Your task to perform on an android device: Clear the cart on amazon.com. Search for usb-a to usb-b on amazon.com, select the first entry, add it to the cart, then select checkout. Image 0: 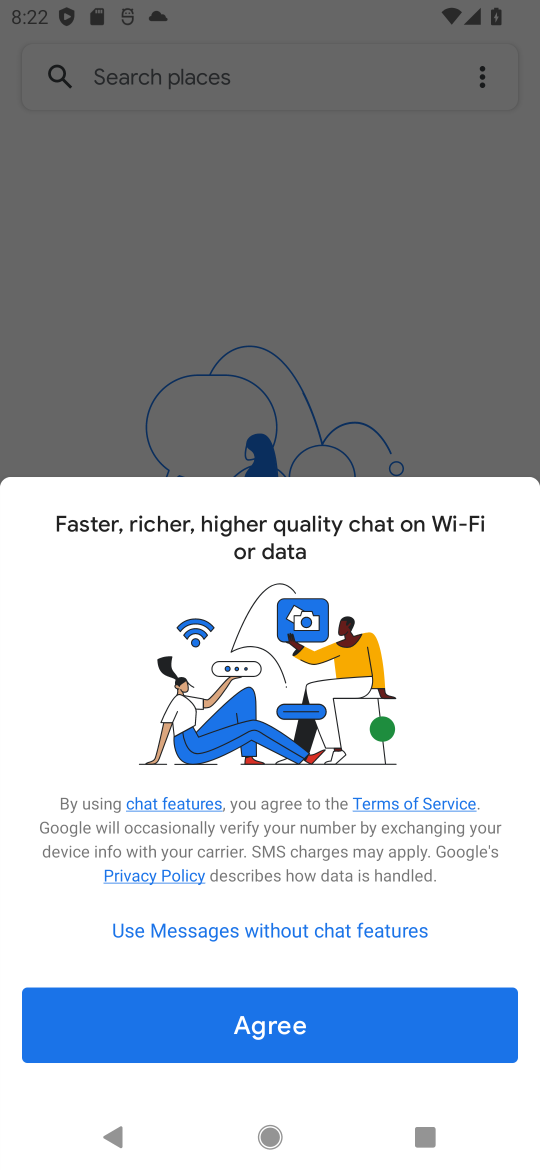
Step 0: press home button
Your task to perform on an android device: Clear the cart on amazon.com. Search for usb-a to usb-b on amazon.com, select the first entry, add it to the cart, then select checkout. Image 1: 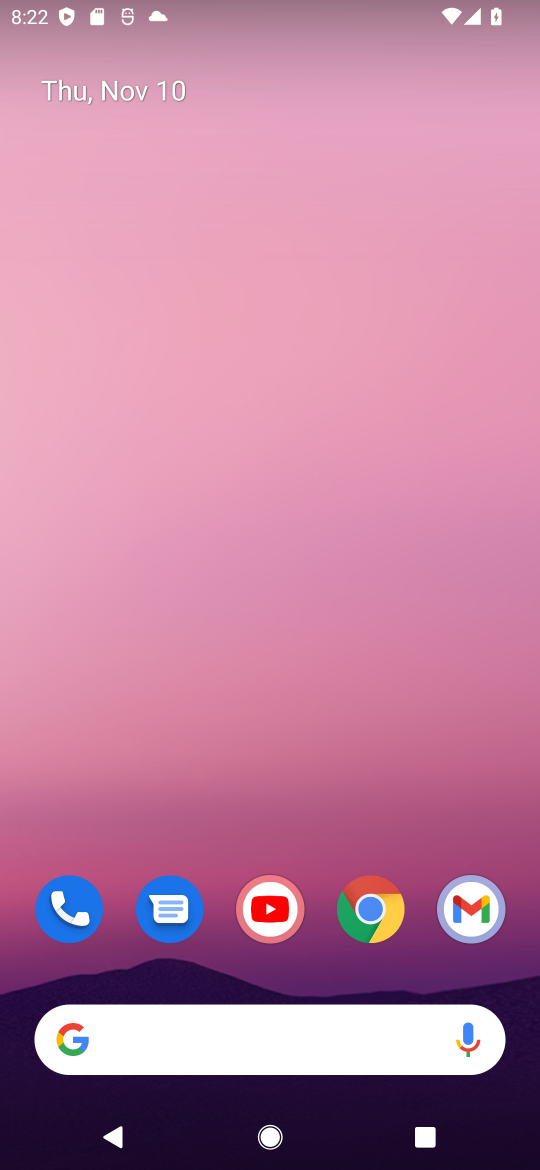
Step 1: drag from (266, 754) to (269, 291)
Your task to perform on an android device: Clear the cart on amazon.com. Search for usb-a to usb-b on amazon.com, select the first entry, add it to the cart, then select checkout. Image 2: 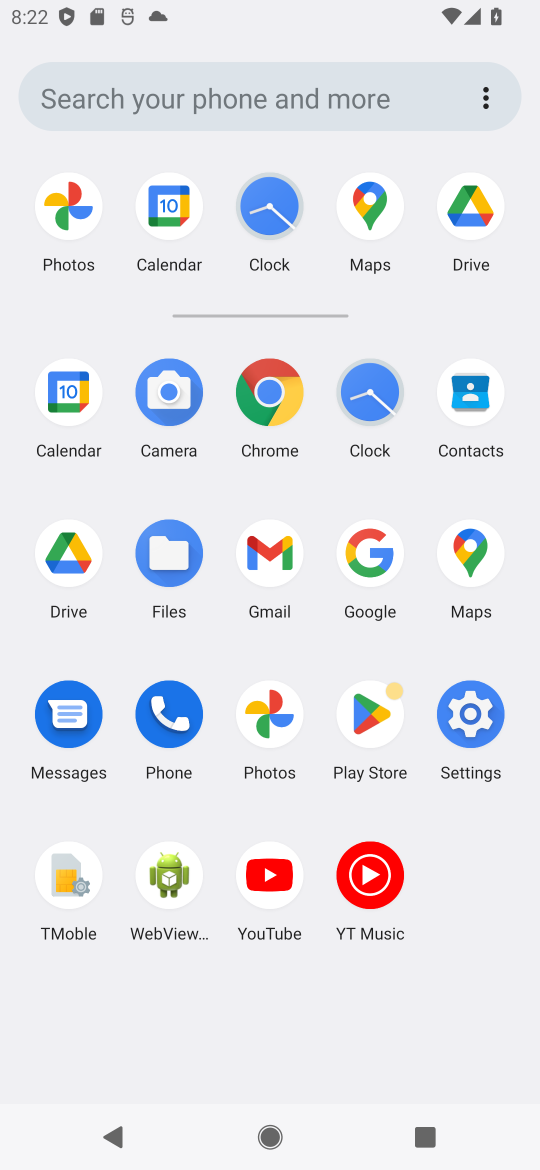
Step 2: click (364, 540)
Your task to perform on an android device: Clear the cart on amazon.com. Search for usb-a to usb-b on amazon.com, select the first entry, add it to the cart, then select checkout. Image 3: 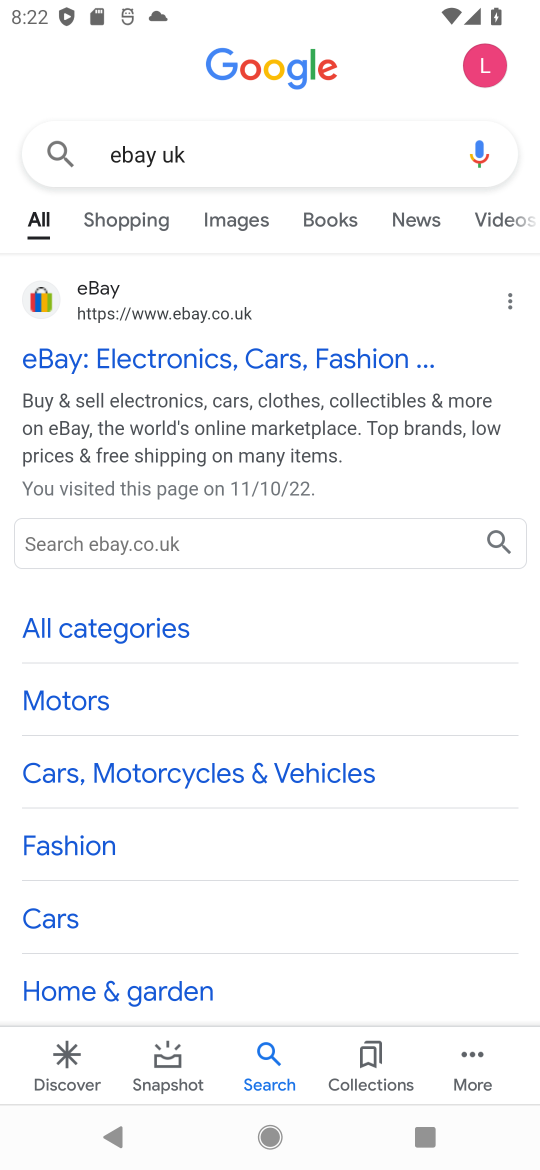
Step 3: click (192, 158)
Your task to perform on an android device: Clear the cart on amazon.com. Search for usb-a to usb-b on amazon.com, select the first entry, add it to the cart, then select checkout. Image 4: 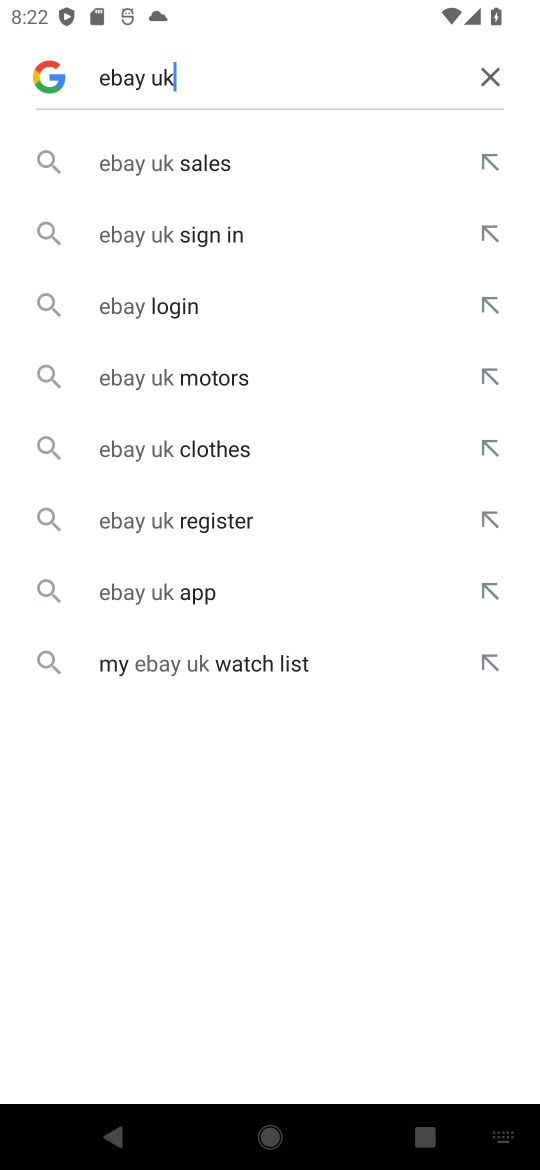
Step 4: click (480, 73)
Your task to perform on an android device: Clear the cart on amazon.com. Search for usb-a to usb-b on amazon.com, select the first entry, add it to the cart, then select checkout. Image 5: 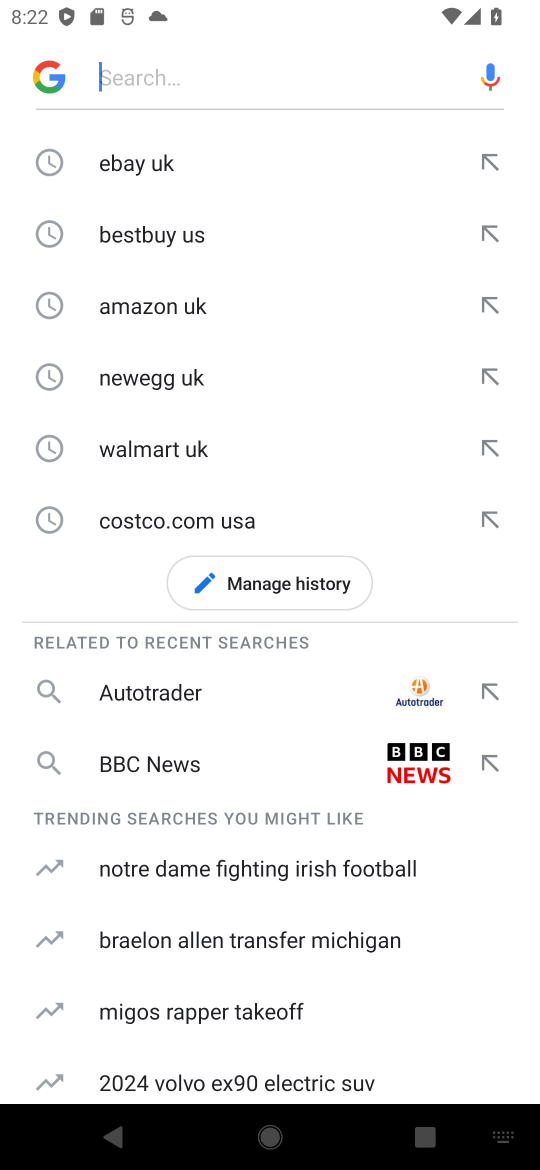
Step 5: click (169, 63)
Your task to perform on an android device: Clear the cart on amazon.com. Search for usb-a to usb-b on amazon.com, select the first entry, add it to the cart, then select checkout. Image 6: 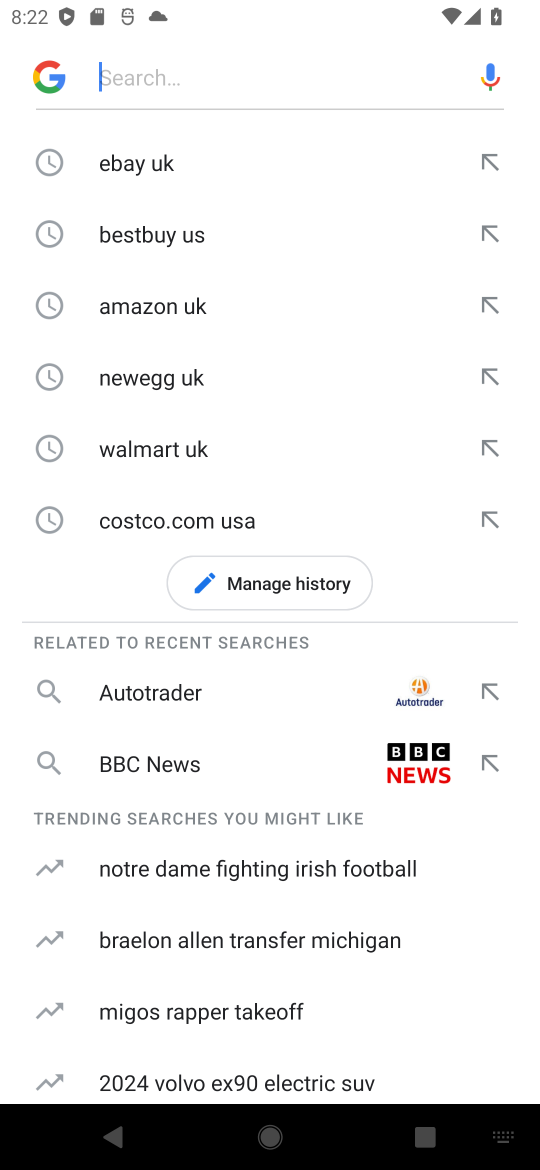
Step 6: type "amazon "
Your task to perform on an android device: Clear the cart on amazon.com. Search for usb-a to usb-b on amazon.com, select the first entry, add it to the cart, then select checkout. Image 7: 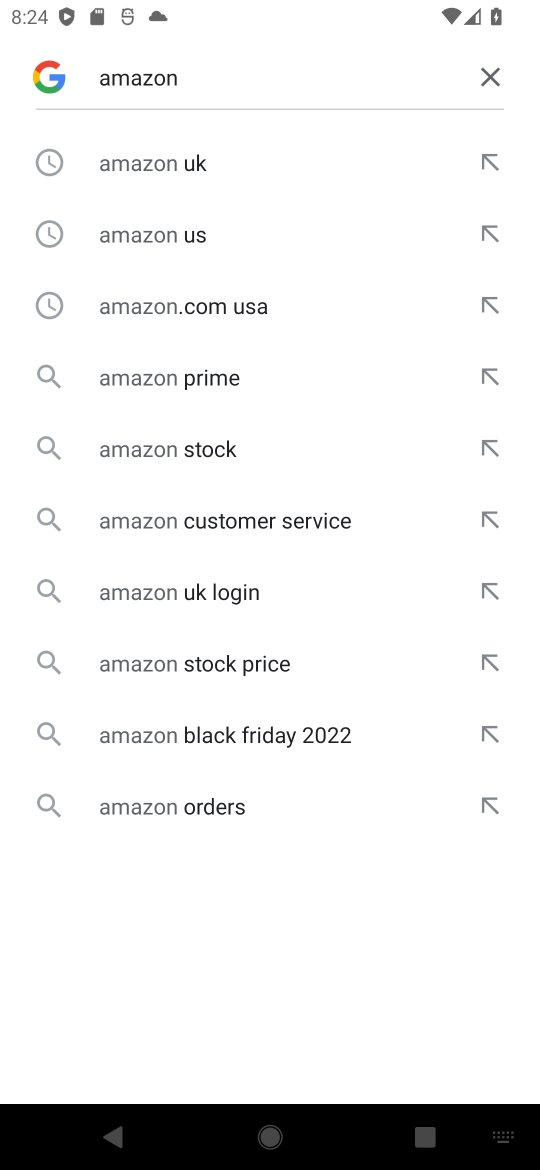
Step 7: click (189, 174)
Your task to perform on an android device: Clear the cart on amazon.com. Search for usb-a to usb-b on amazon.com, select the first entry, add it to the cart, then select checkout. Image 8: 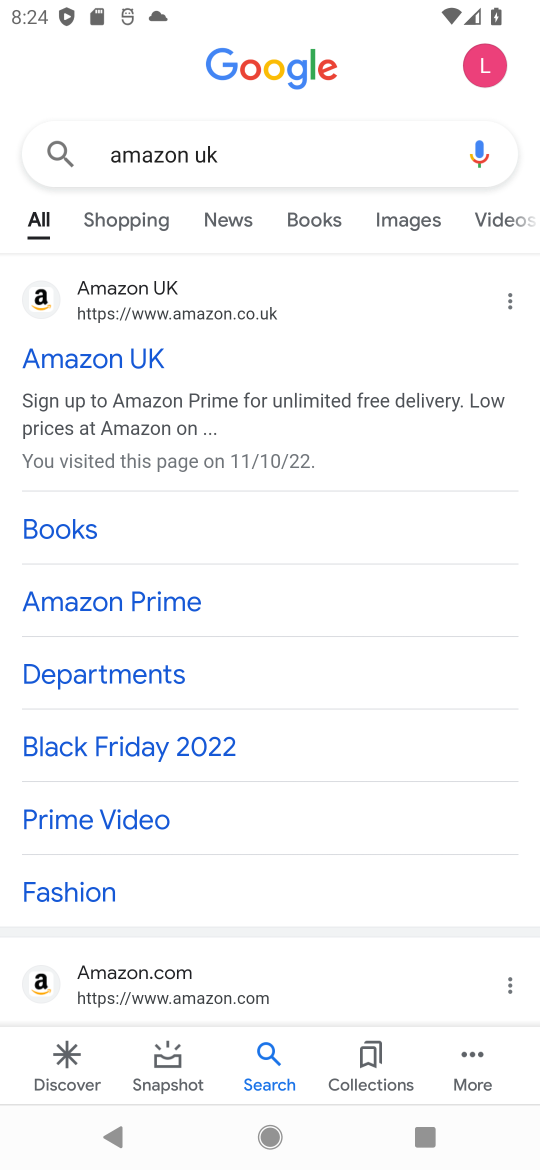
Step 8: click (30, 298)
Your task to perform on an android device: Clear the cart on amazon.com. Search for usb-a to usb-b on amazon.com, select the first entry, add it to the cart, then select checkout. Image 9: 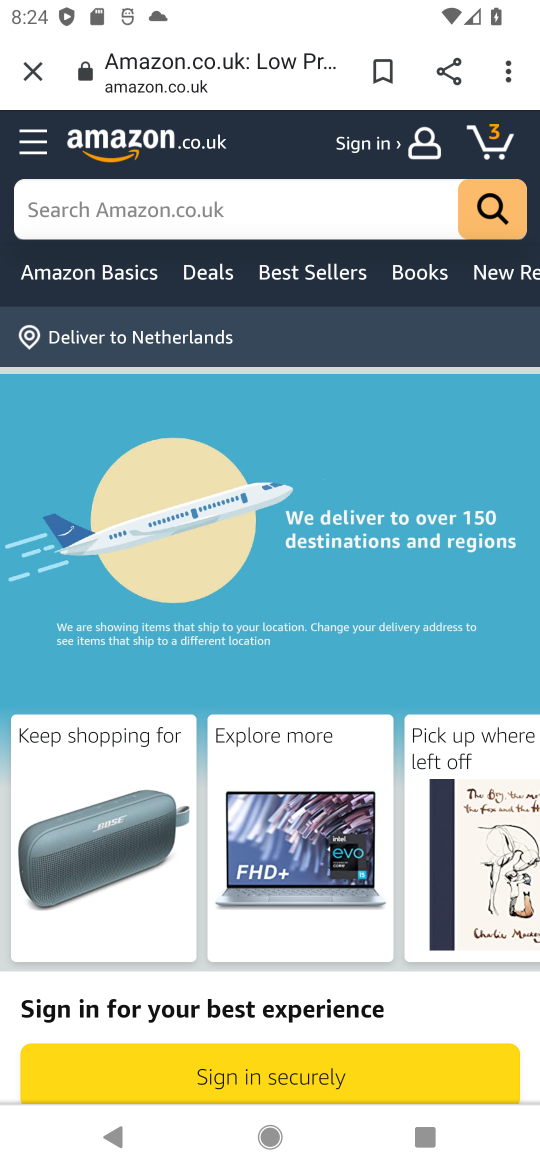
Step 9: click (167, 190)
Your task to perform on an android device: Clear the cart on amazon.com. Search for usb-a to usb-b on amazon.com, select the first entry, add it to the cart, then select checkout. Image 10: 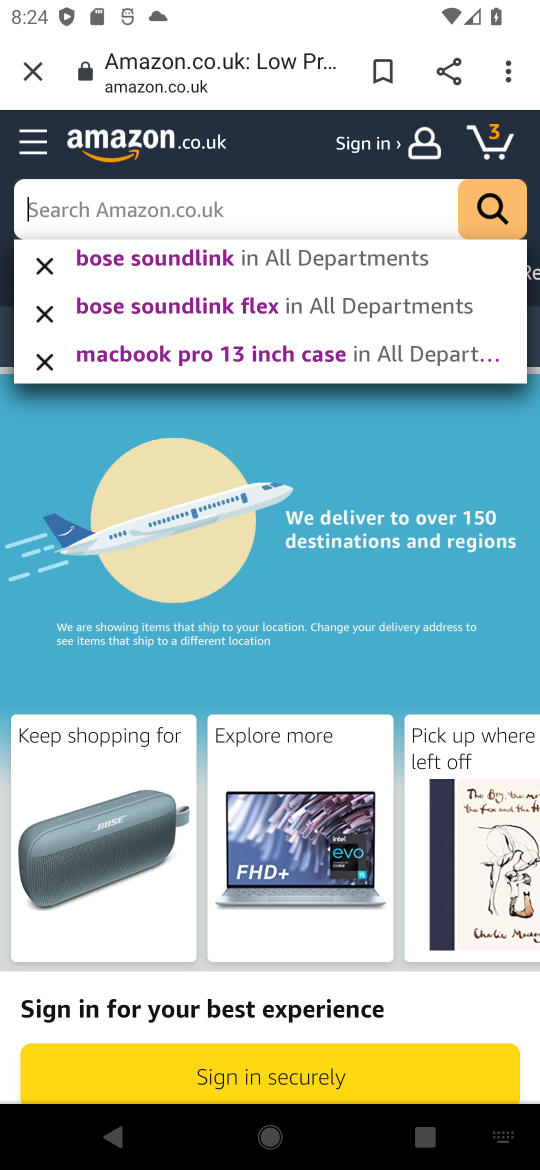
Step 10: type "usb-a to usb-b "
Your task to perform on an android device: Clear the cart on amazon.com. Search for usb-a to usb-b on amazon.com, select the first entry, add it to the cart, then select checkout. Image 11: 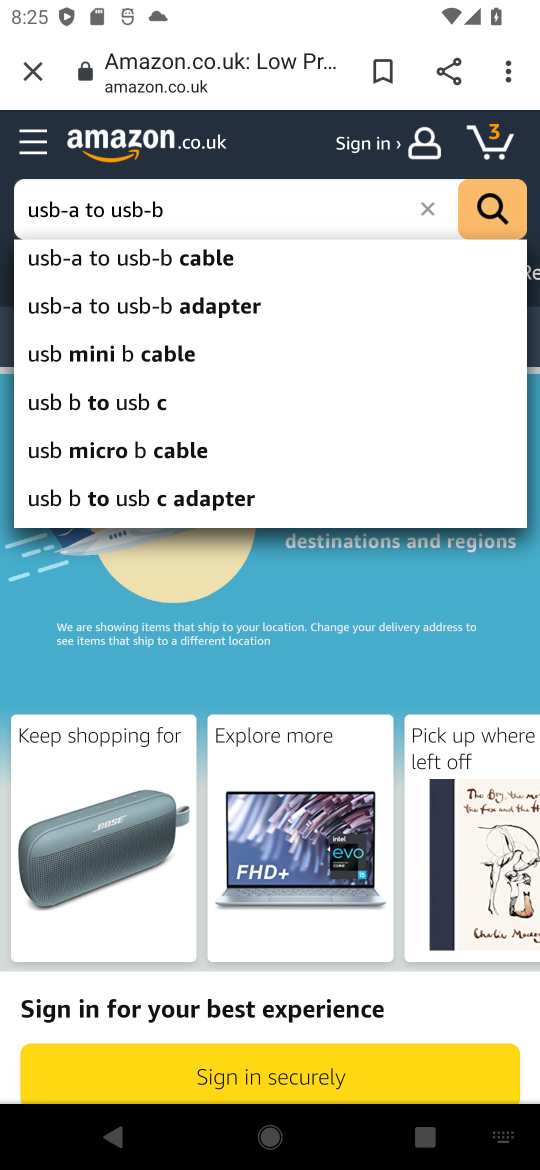
Step 11: click (202, 256)
Your task to perform on an android device: Clear the cart on amazon.com. Search for usb-a to usb-b on amazon.com, select the first entry, add it to the cart, then select checkout. Image 12: 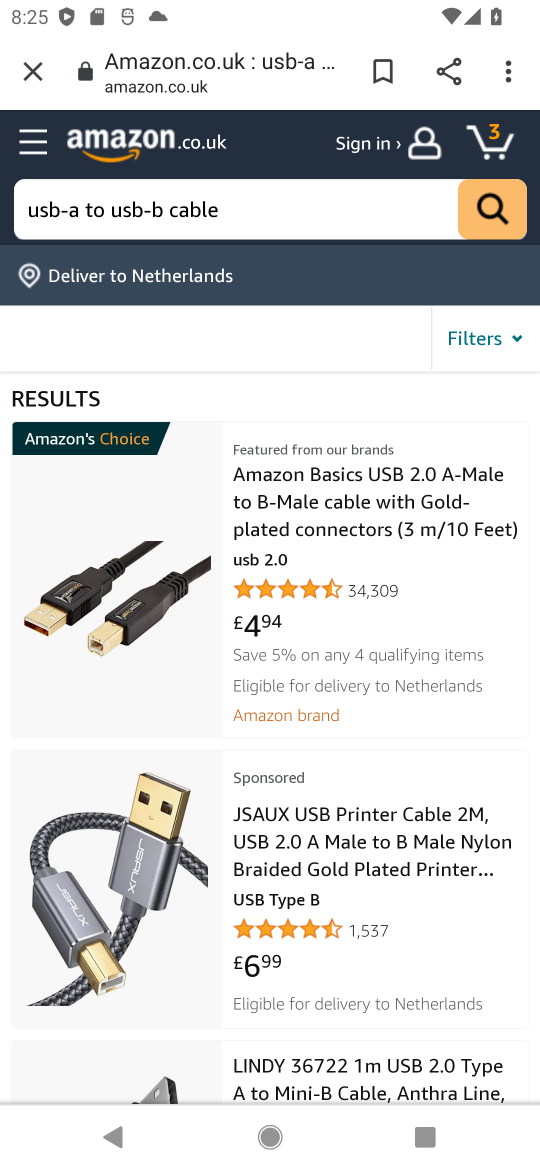
Step 12: click (332, 509)
Your task to perform on an android device: Clear the cart on amazon.com. Search for usb-a to usb-b on amazon.com, select the first entry, add it to the cart, then select checkout. Image 13: 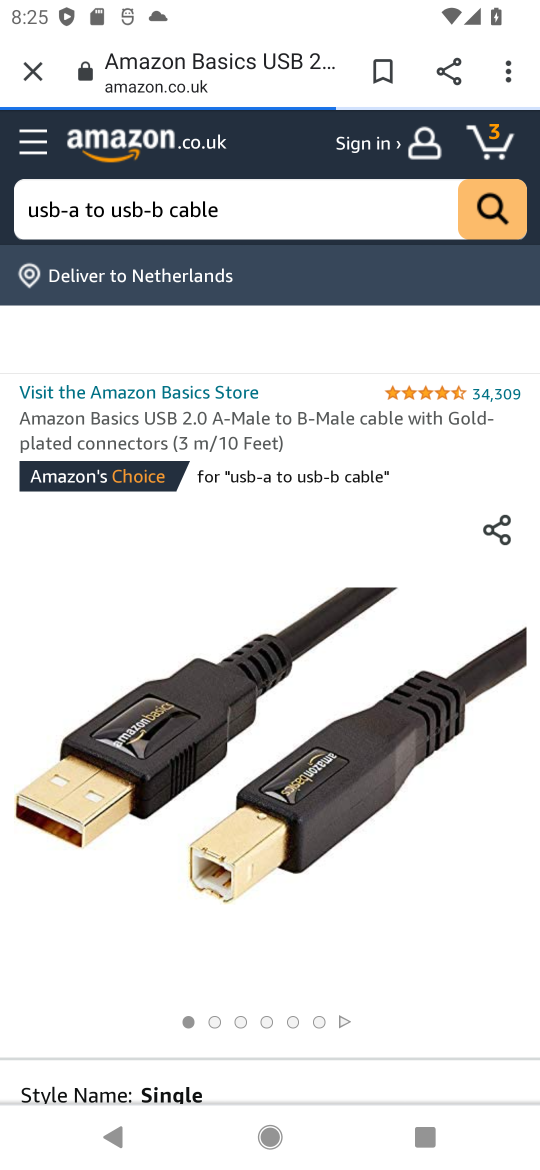
Step 13: drag from (289, 984) to (337, 249)
Your task to perform on an android device: Clear the cart on amazon.com. Search for usb-a to usb-b on amazon.com, select the first entry, add it to the cart, then select checkout. Image 14: 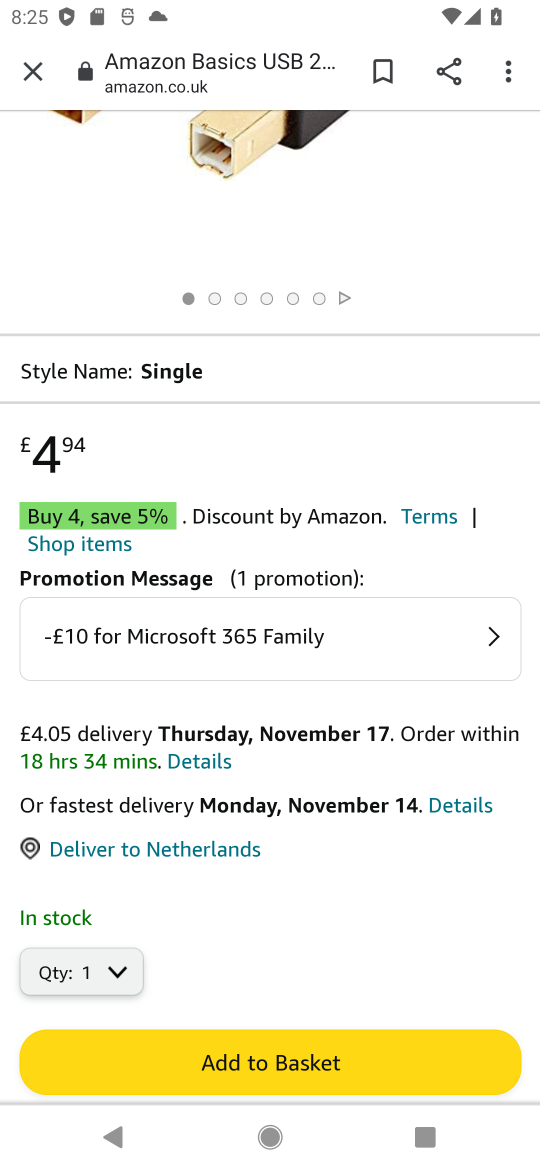
Step 14: click (240, 1048)
Your task to perform on an android device: Clear the cart on amazon.com. Search for usb-a to usb-b on amazon.com, select the first entry, add it to the cart, then select checkout. Image 15: 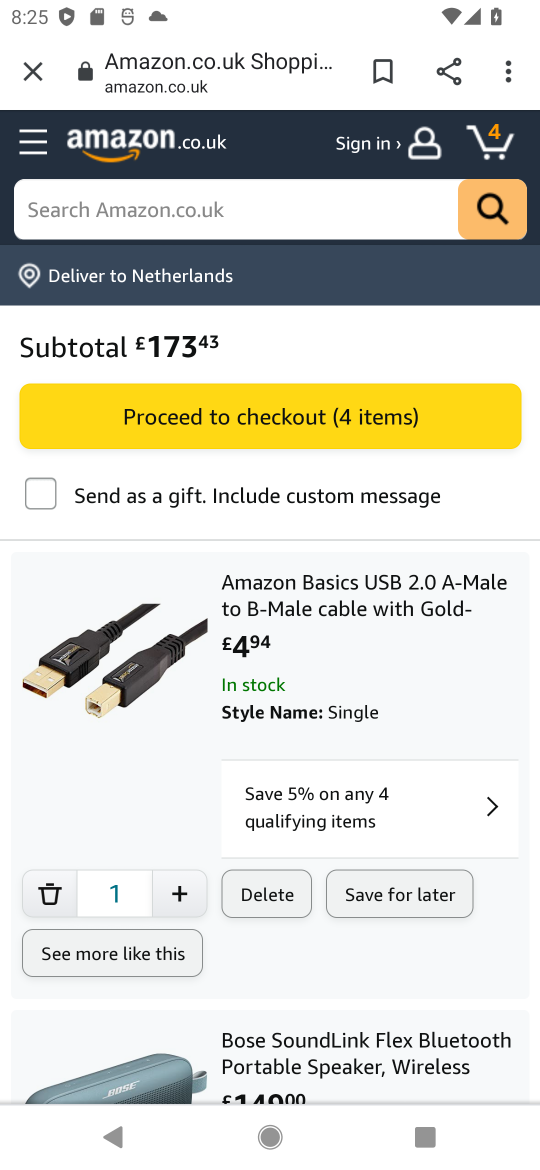
Step 15: task complete